Your task to perform on an android device: When is my next appointment? Image 0: 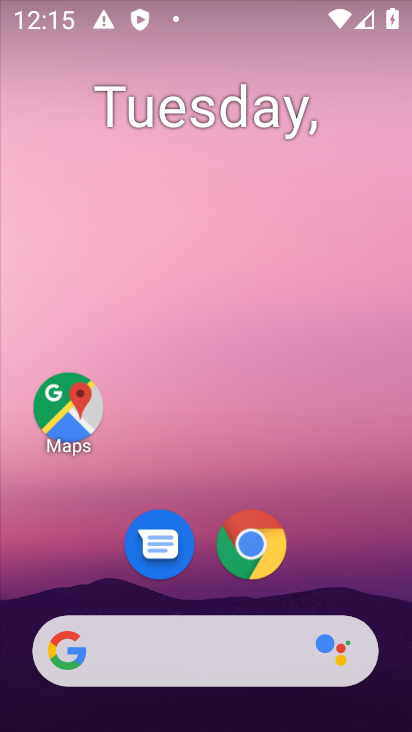
Step 0: click (227, 113)
Your task to perform on an android device: When is my next appointment? Image 1: 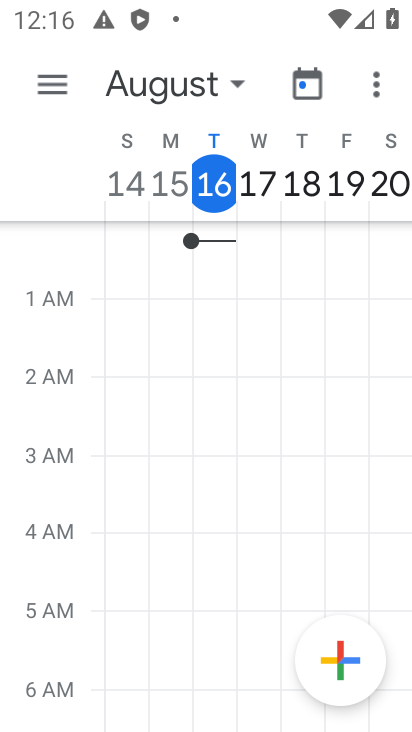
Step 1: task complete